Your task to perform on an android device: Go to Wikipedia Image 0: 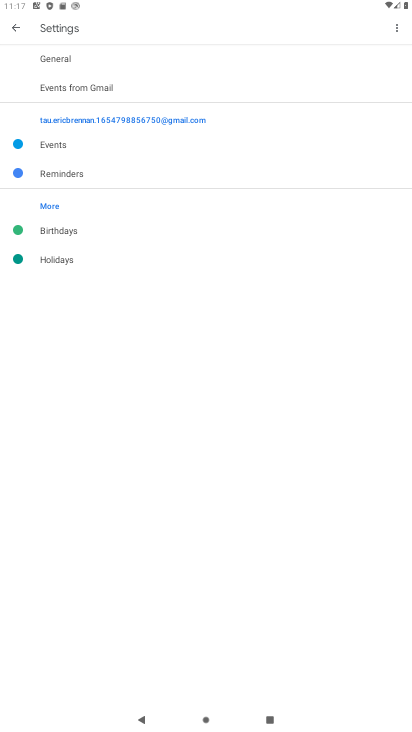
Step 0: press home button
Your task to perform on an android device: Go to Wikipedia Image 1: 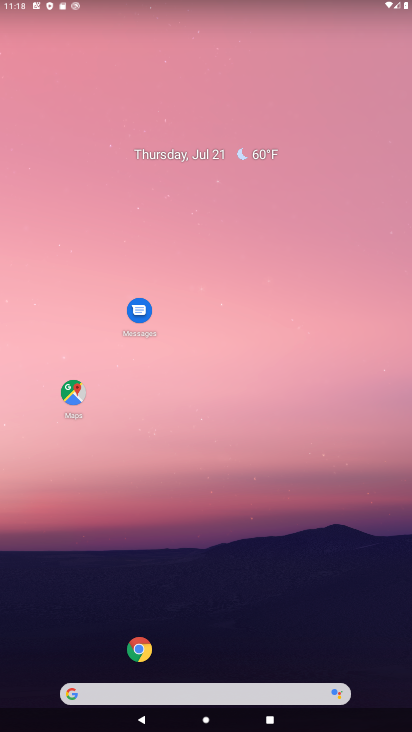
Step 1: click (135, 689)
Your task to perform on an android device: Go to Wikipedia Image 2: 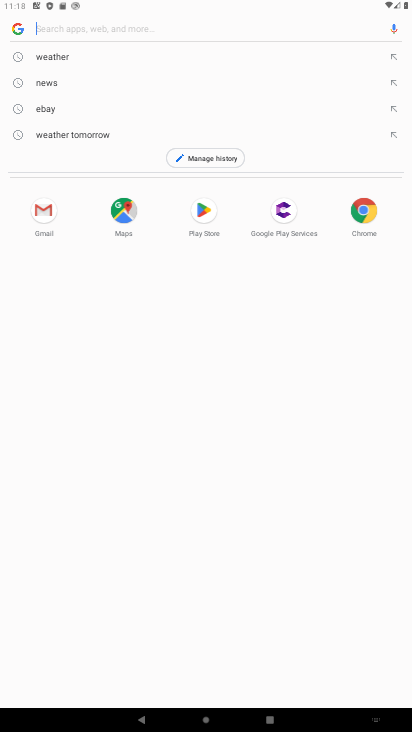
Step 2: type "Wikipedia"
Your task to perform on an android device: Go to Wikipedia Image 3: 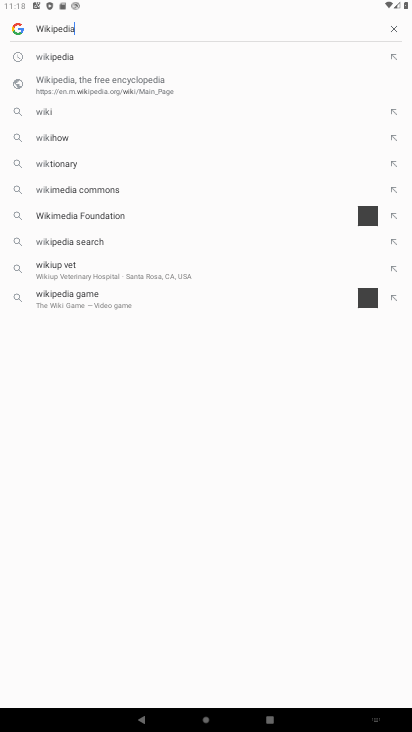
Step 3: type ""
Your task to perform on an android device: Go to Wikipedia Image 4: 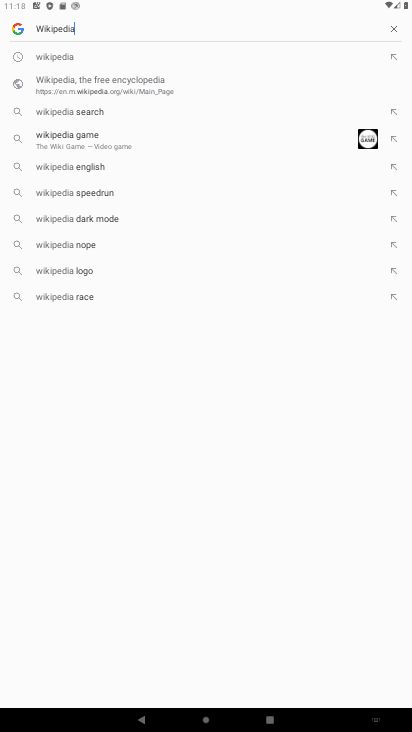
Step 4: click (58, 56)
Your task to perform on an android device: Go to Wikipedia Image 5: 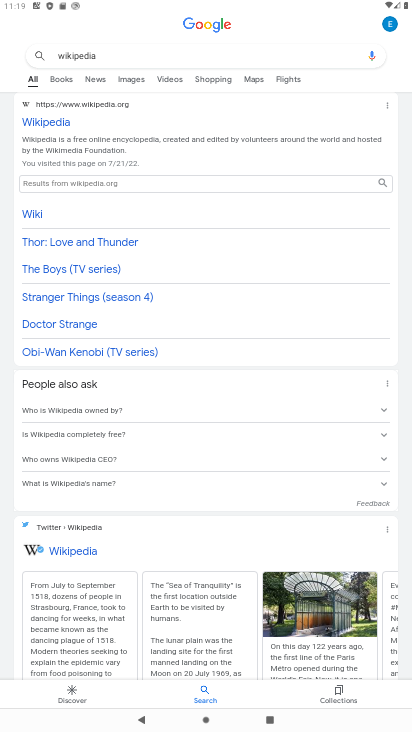
Step 5: task complete